Your task to perform on an android device: open app "PUBG MOBILE" (install if not already installed) and go to login screen Image 0: 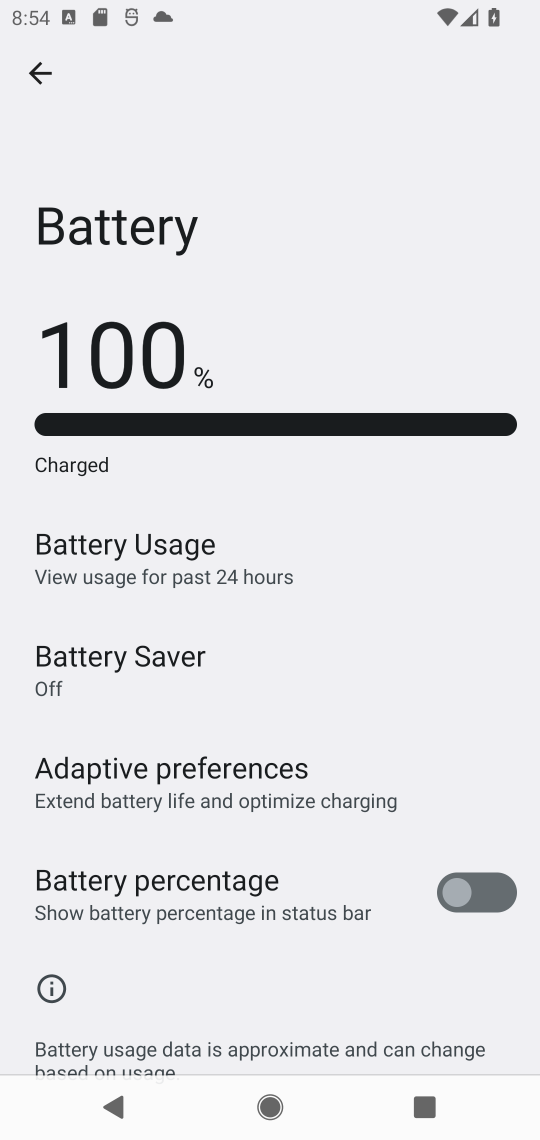
Step 0: press home button
Your task to perform on an android device: open app "PUBG MOBILE" (install if not already installed) and go to login screen Image 1: 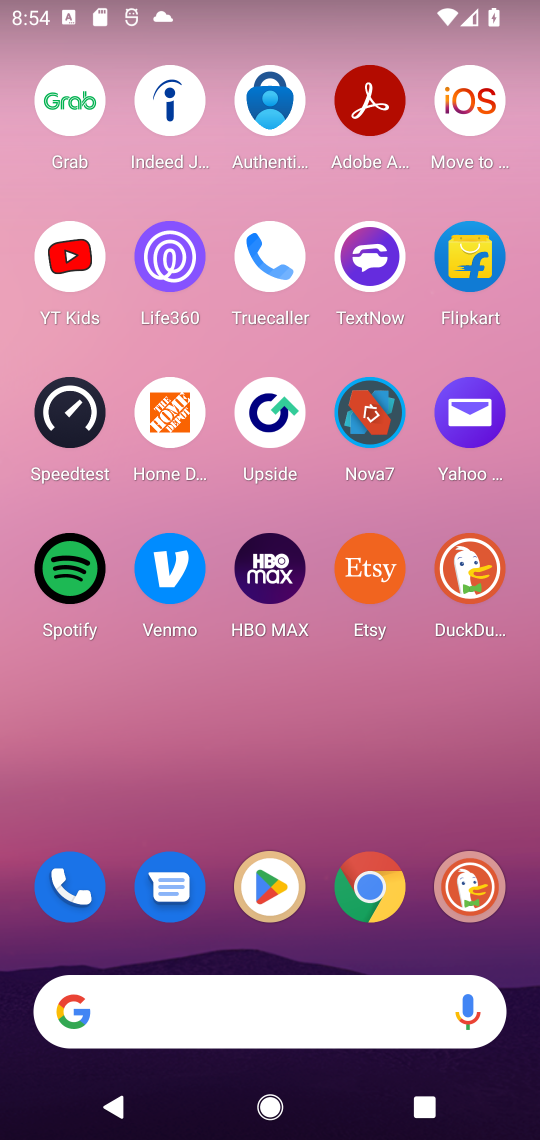
Step 1: click (268, 884)
Your task to perform on an android device: open app "PUBG MOBILE" (install if not already installed) and go to login screen Image 2: 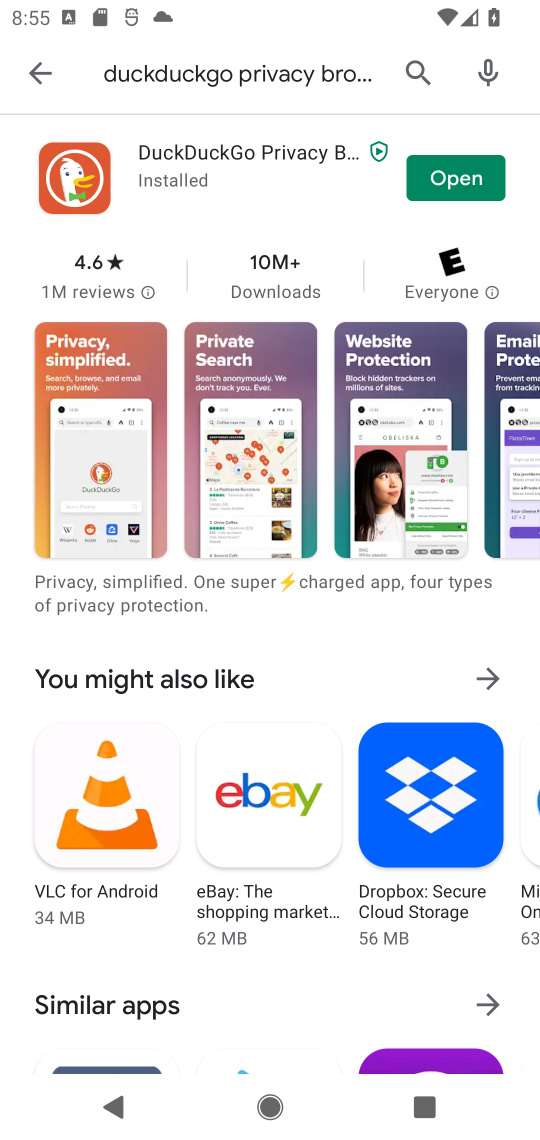
Step 2: click (413, 59)
Your task to perform on an android device: open app "PUBG MOBILE" (install if not already installed) and go to login screen Image 3: 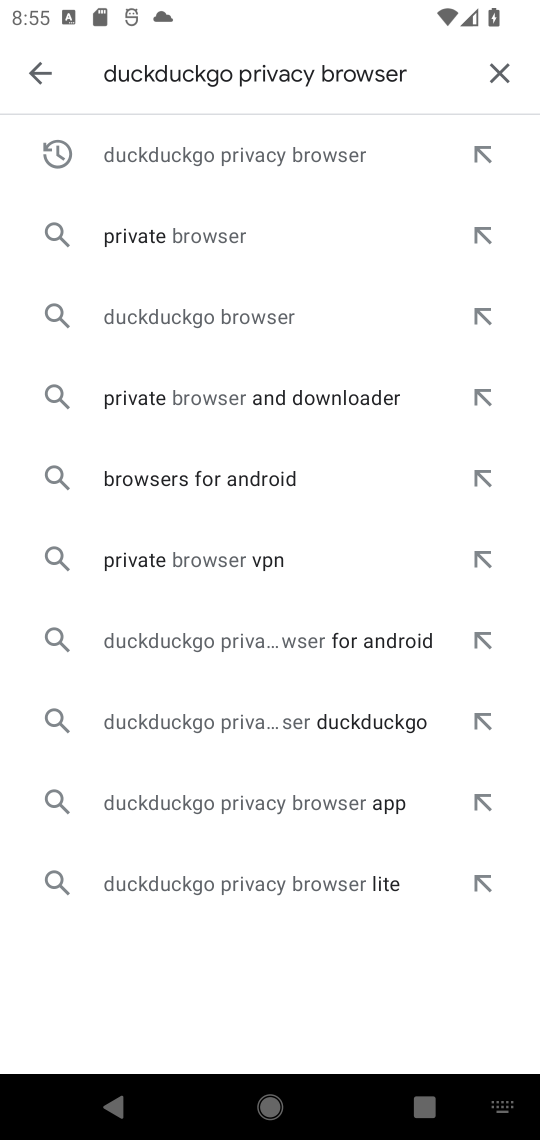
Step 3: click (494, 63)
Your task to perform on an android device: open app "PUBG MOBILE" (install if not already installed) and go to login screen Image 4: 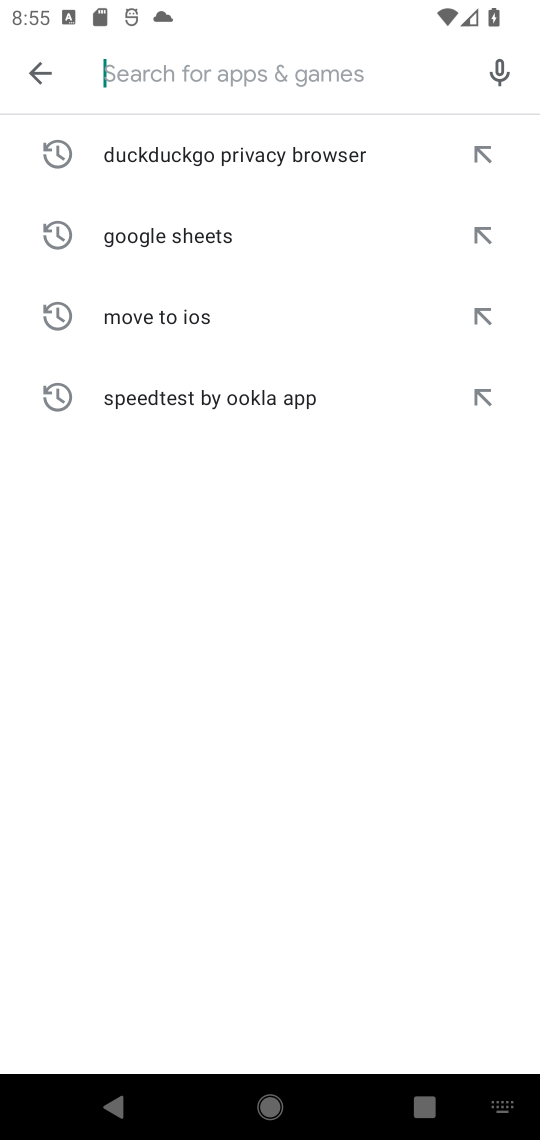
Step 4: type "PUBG MOBILE"
Your task to perform on an android device: open app "PUBG MOBILE" (install if not already installed) and go to login screen Image 5: 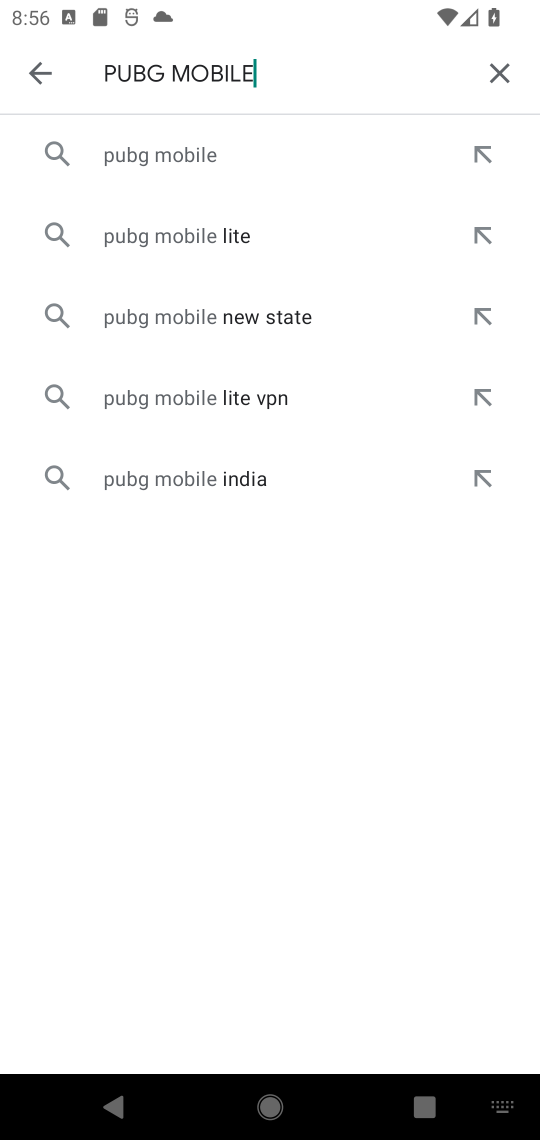
Step 5: click (164, 151)
Your task to perform on an android device: open app "PUBG MOBILE" (install if not already installed) and go to login screen Image 6: 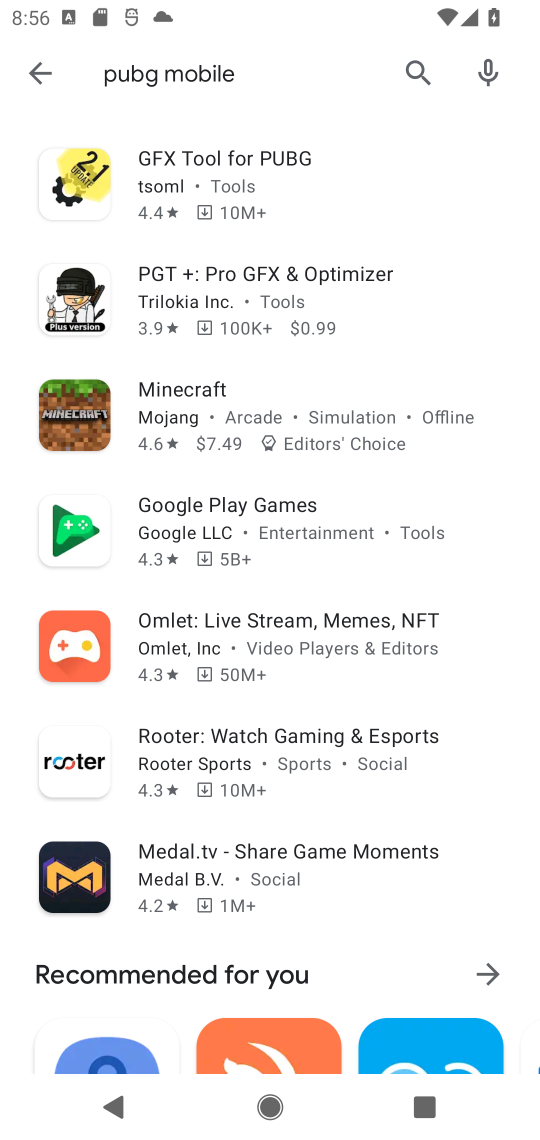
Step 6: task complete